Your task to perform on an android device: Search for Mexican restaurants on Maps Image 0: 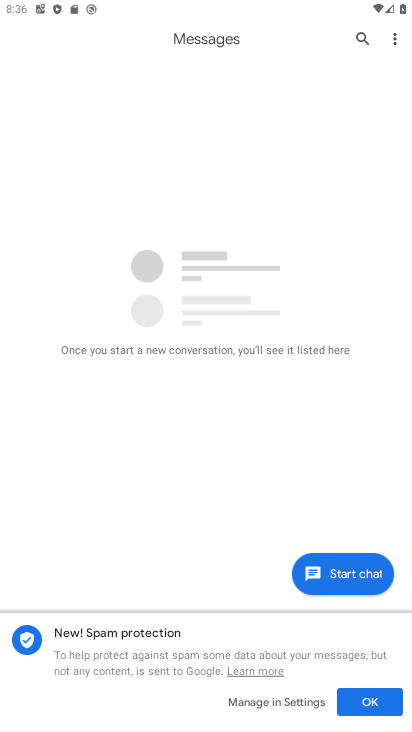
Step 0: press back button
Your task to perform on an android device: Search for Mexican restaurants on Maps Image 1: 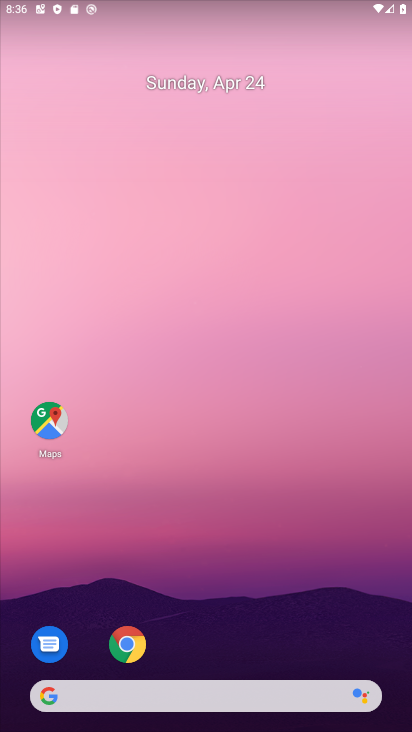
Step 1: click (48, 425)
Your task to perform on an android device: Search for Mexican restaurants on Maps Image 2: 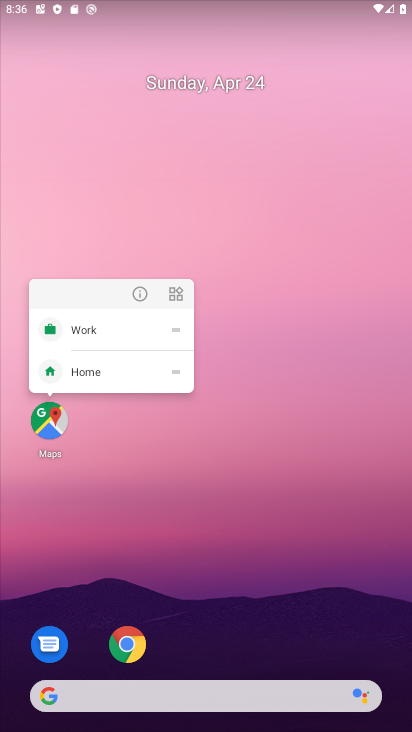
Step 2: click (51, 425)
Your task to perform on an android device: Search for Mexican restaurants on Maps Image 3: 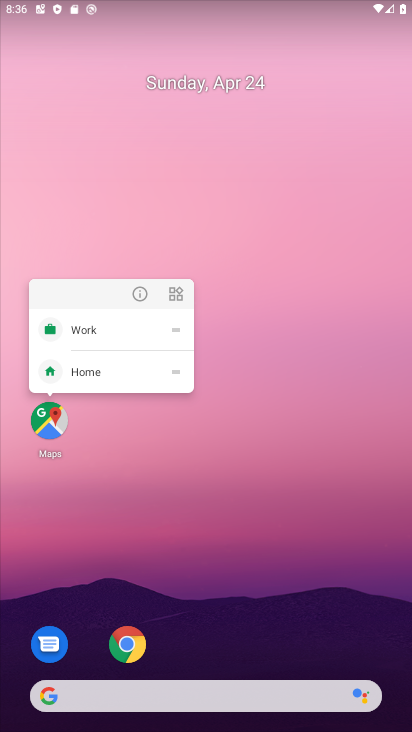
Step 3: click (51, 425)
Your task to perform on an android device: Search for Mexican restaurants on Maps Image 4: 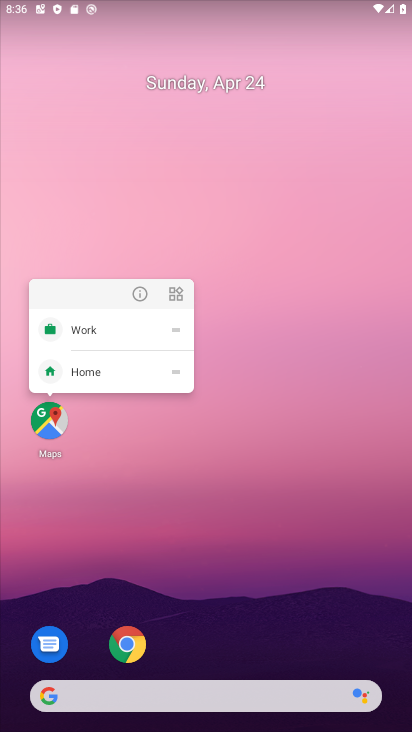
Step 4: drag from (270, 573) to (389, 18)
Your task to perform on an android device: Search for Mexican restaurants on Maps Image 5: 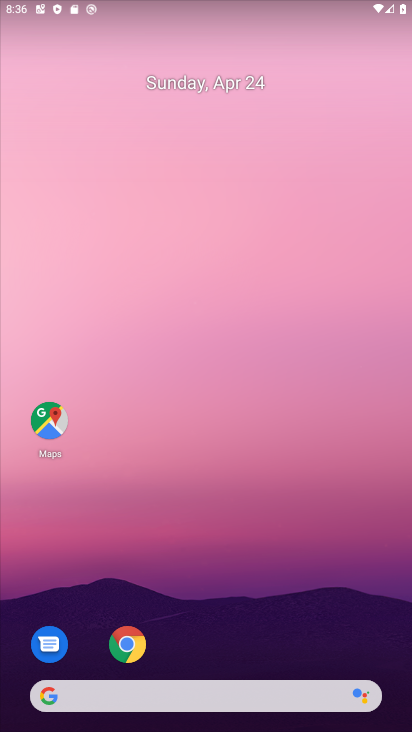
Step 5: click (56, 428)
Your task to perform on an android device: Search for Mexican restaurants on Maps Image 6: 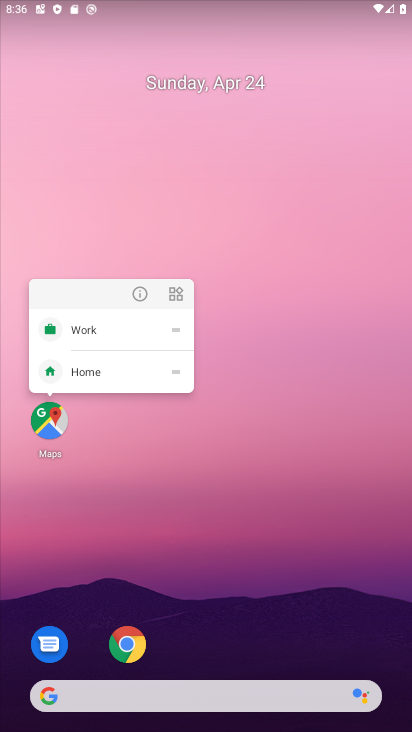
Step 6: click (56, 428)
Your task to perform on an android device: Search for Mexican restaurants on Maps Image 7: 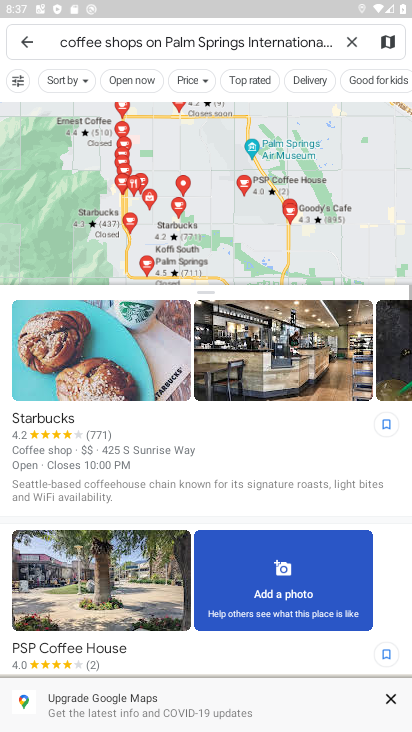
Step 7: click (354, 41)
Your task to perform on an android device: Search for Mexican restaurants on Maps Image 8: 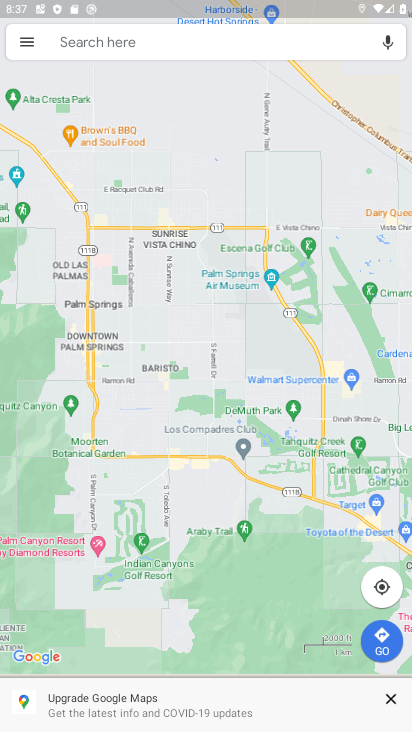
Step 8: click (167, 37)
Your task to perform on an android device: Search for Mexican restaurants on Maps Image 9: 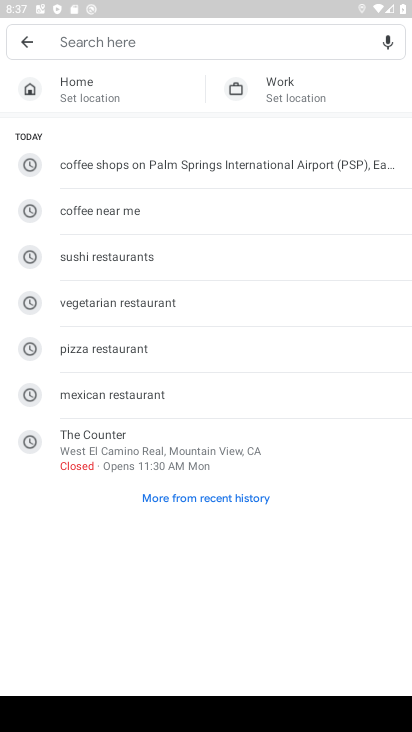
Step 9: type "Mexican restaurants"
Your task to perform on an android device: Search for Mexican restaurants on Maps Image 10: 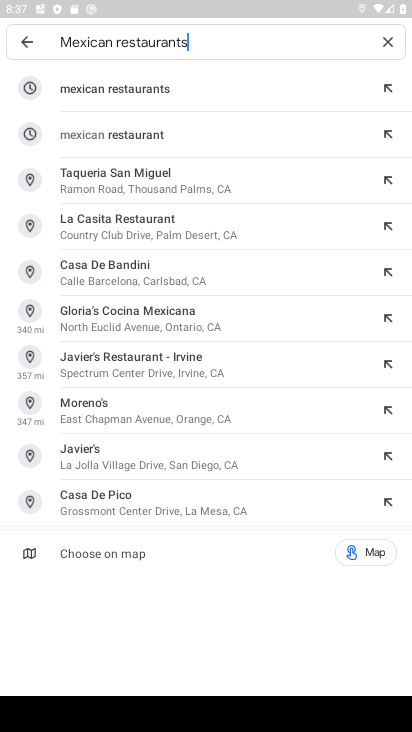
Step 10: click (207, 100)
Your task to perform on an android device: Search for Mexican restaurants on Maps Image 11: 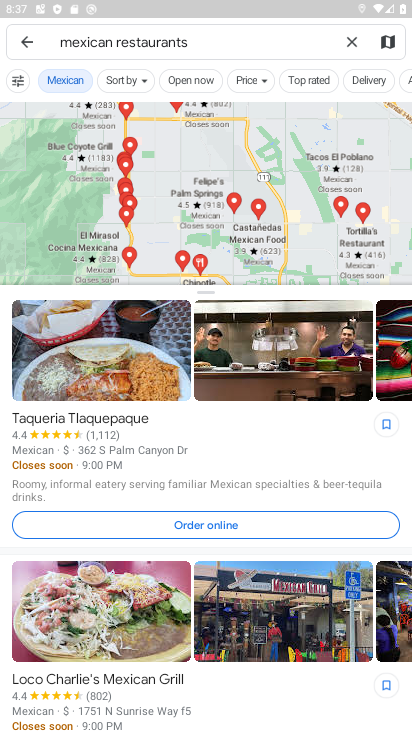
Step 11: task complete